Your task to perform on an android device: toggle pop-ups in chrome Image 0: 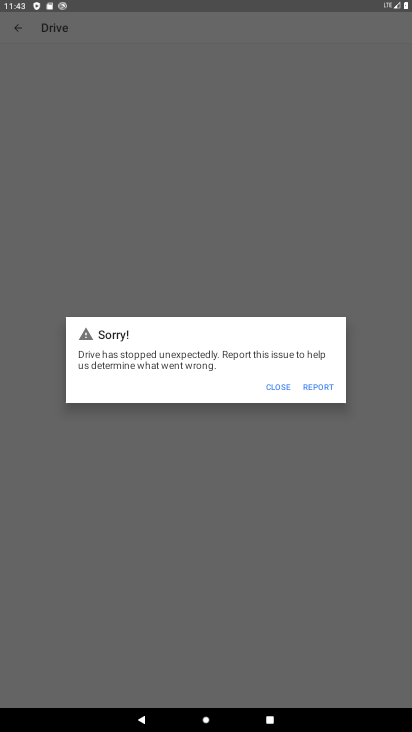
Step 0: drag from (249, 643) to (203, 224)
Your task to perform on an android device: toggle pop-ups in chrome Image 1: 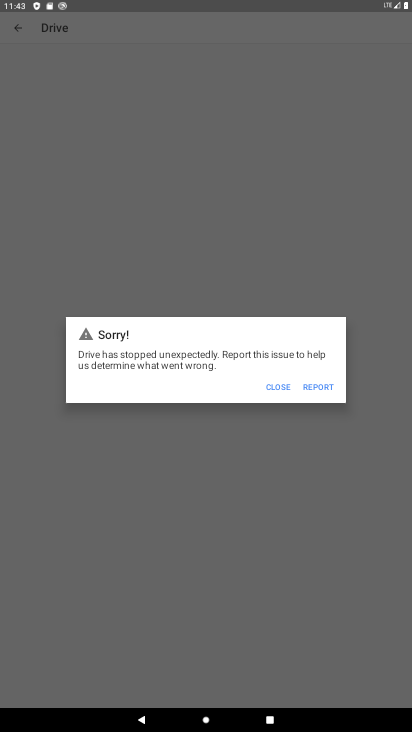
Step 1: press home button
Your task to perform on an android device: toggle pop-ups in chrome Image 2: 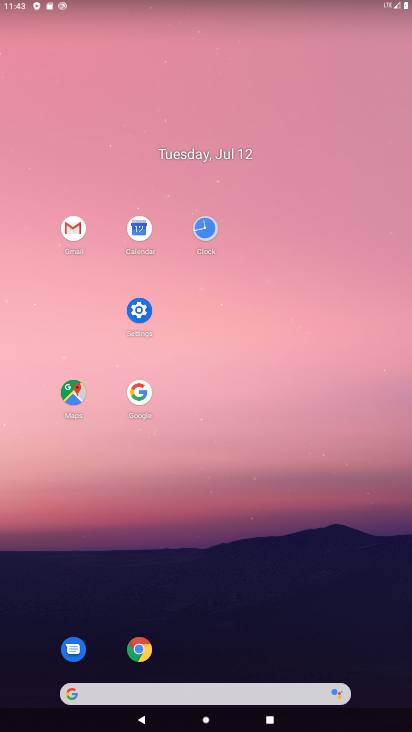
Step 2: click (134, 645)
Your task to perform on an android device: toggle pop-ups in chrome Image 3: 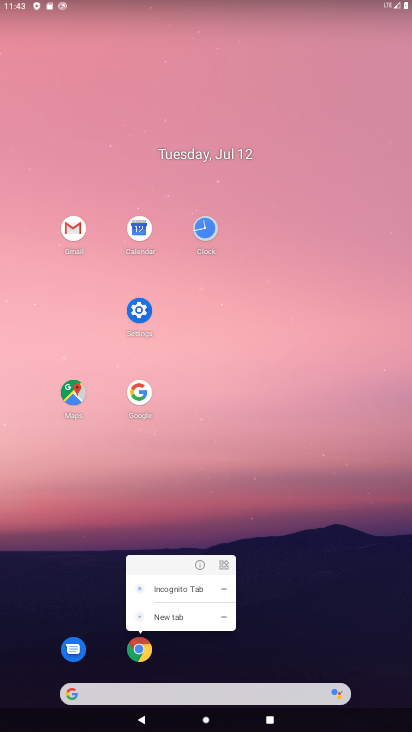
Step 3: click (135, 643)
Your task to perform on an android device: toggle pop-ups in chrome Image 4: 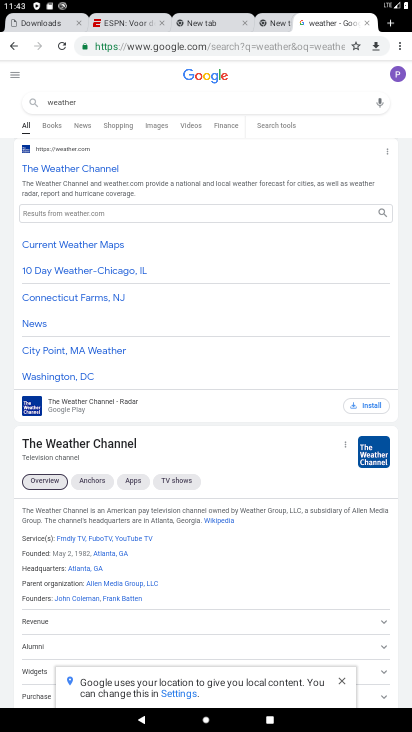
Step 4: click (405, 44)
Your task to perform on an android device: toggle pop-ups in chrome Image 5: 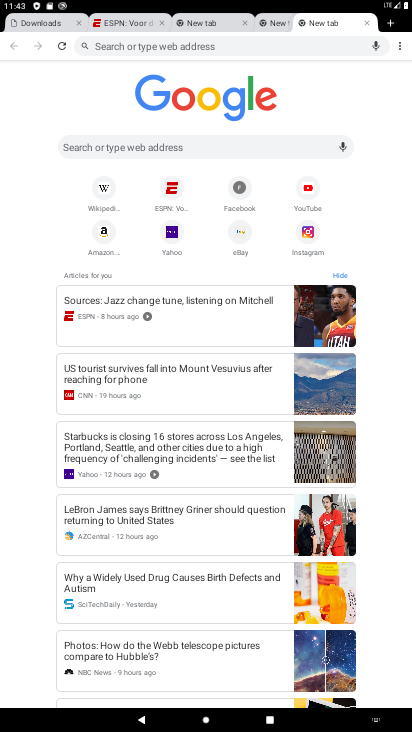
Step 5: click (397, 45)
Your task to perform on an android device: toggle pop-ups in chrome Image 6: 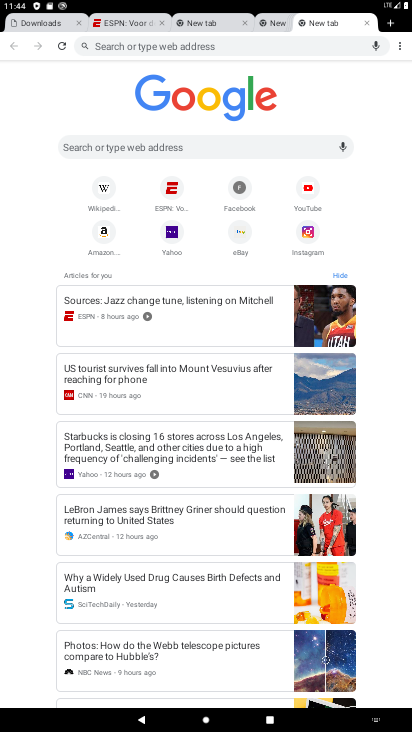
Step 6: click (399, 46)
Your task to perform on an android device: toggle pop-ups in chrome Image 7: 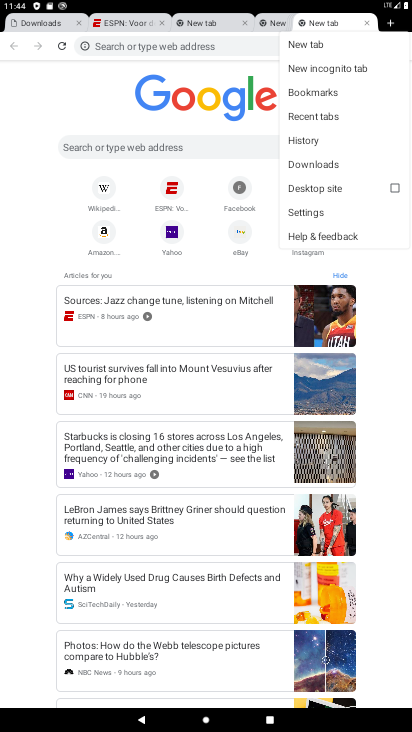
Step 7: click (310, 214)
Your task to perform on an android device: toggle pop-ups in chrome Image 8: 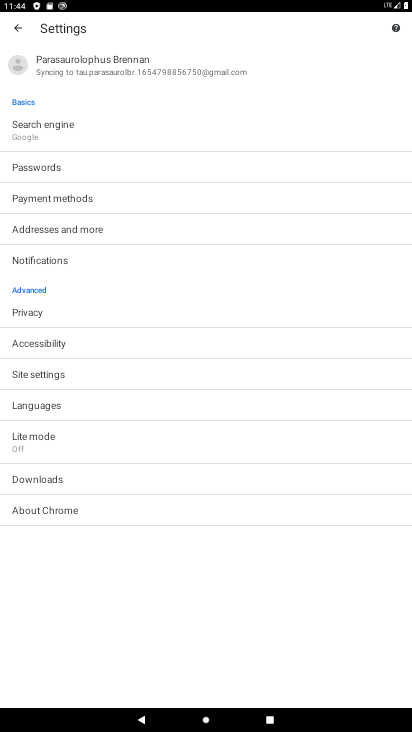
Step 8: click (73, 380)
Your task to perform on an android device: toggle pop-ups in chrome Image 9: 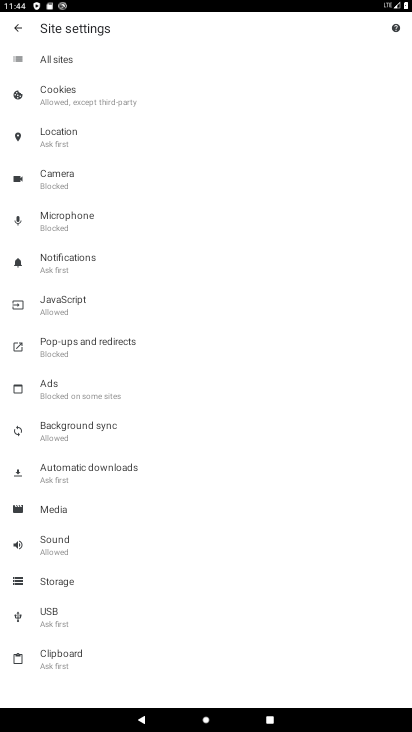
Step 9: click (121, 340)
Your task to perform on an android device: toggle pop-ups in chrome Image 10: 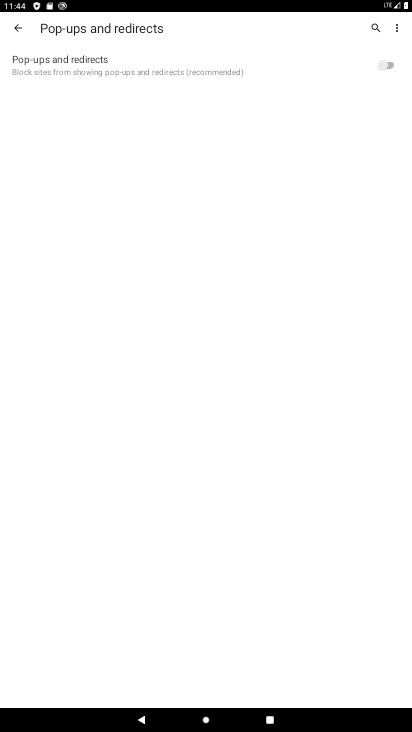
Step 10: click (385, 69)
Your task to perform on an android device: toggle pop-ups in chrome Image 11: 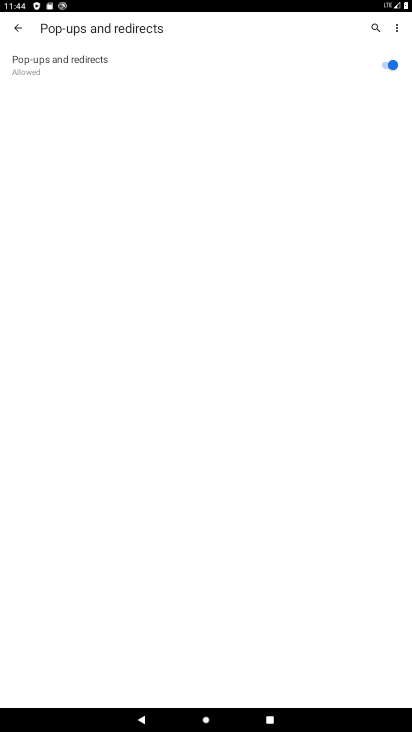
Step 11: task complete